Your task to perform on an android device: Search for seafood restaurants on Google Maps Image 0: 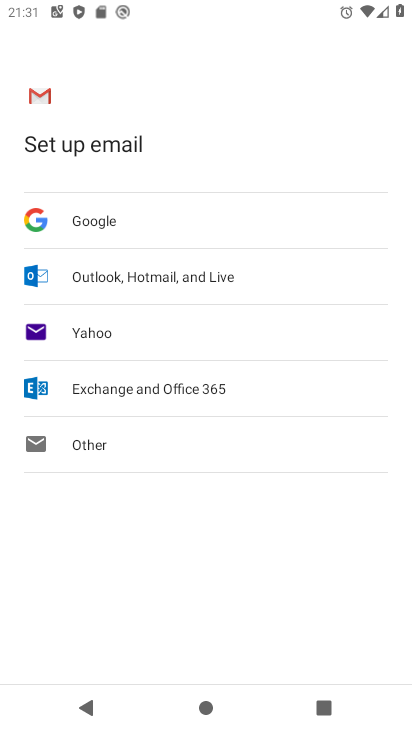
Step 0: press home button
Your task to perform on an android device: Search for seafood restaurants on Google Maps Image 1: 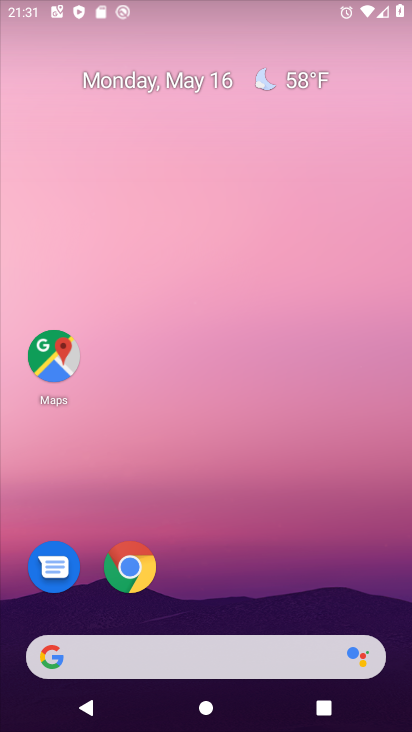
Step 1: drag from (202, 593) to (249, 184)
Your task to perform on an android device: Search for seafood restaurants on Google Maps Image 2: 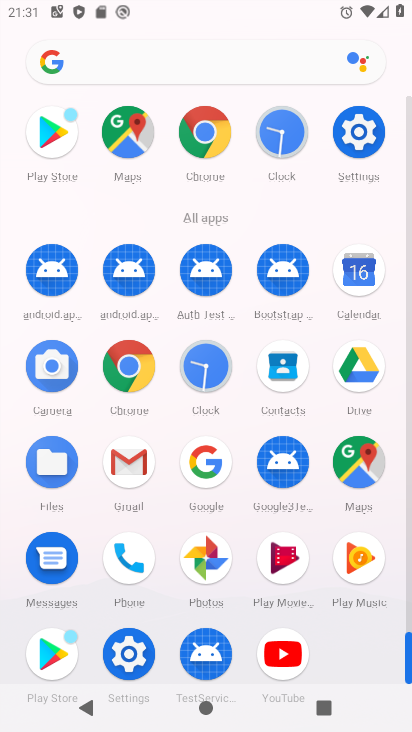
Step 2: click (358, 452)
Your task to perform on an android device: Search for seafood restaurants on Google Maps Image 3: 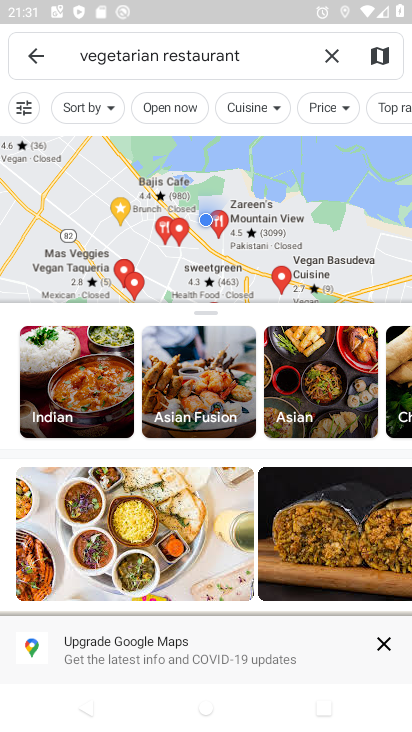
Step 3: click (326, 40)
Your task to perform on an android device: Search for seafood restaurants on Google Maps Image 4: 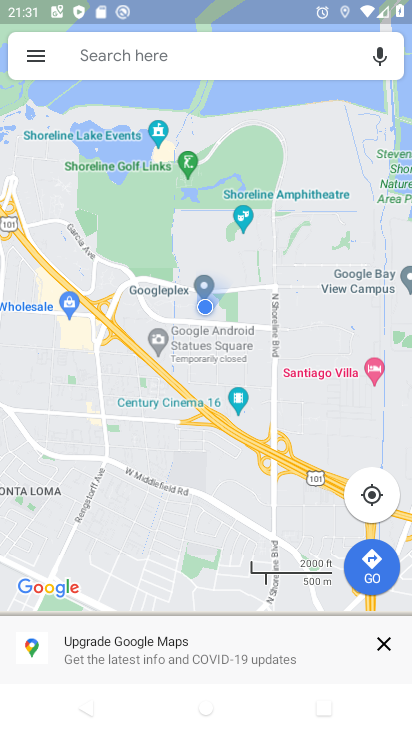
Step 4: click (192, 60)
Your task to perform on an android device: Search for seafood restaurants on Google Maps Image 5: 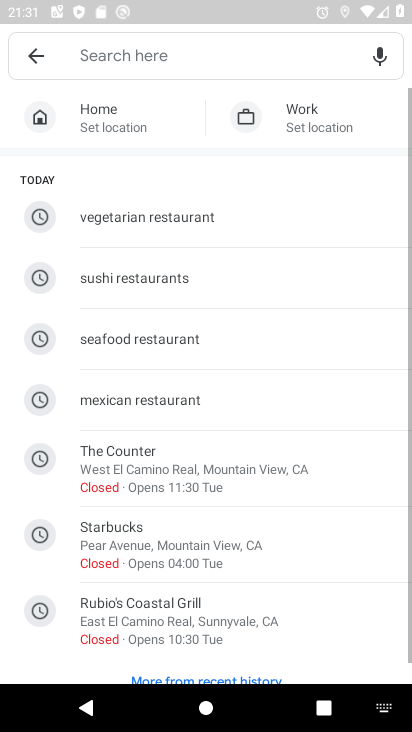
Step 5: click (159, 331)
Your task to perform on an android device: Search for seafood restaurants on Google Maps Image 6: 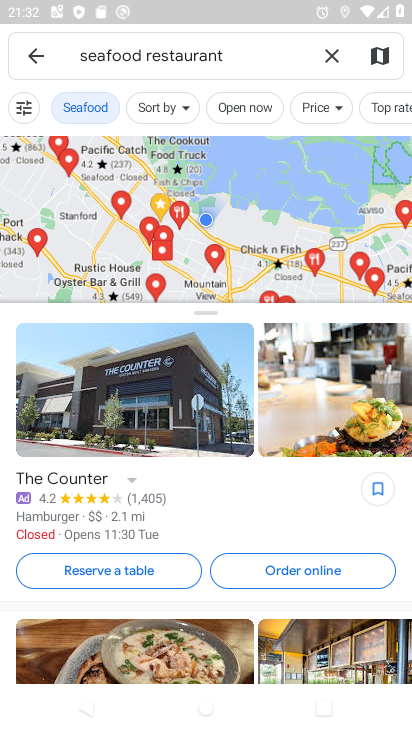
Step 6: task complete